Your task to perform on an android device: open chrome and create a bookmark for the current page Image 0: 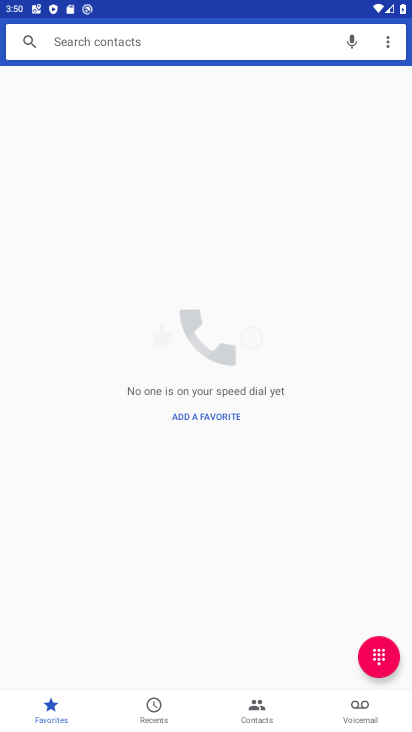
Step 0: press home button
Your task to perform on an android device: open chrome and create a bookmark for the current page Image 1: 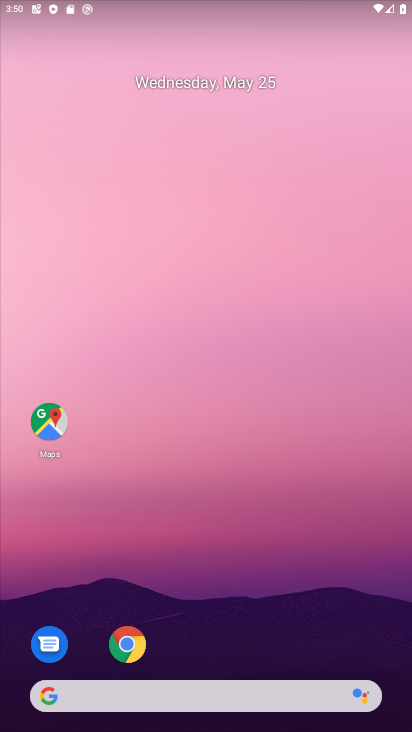
Step 1: click (128, 647)
Your task to perform on an android device: open chrome and create a bookmark for the current page Image 2: 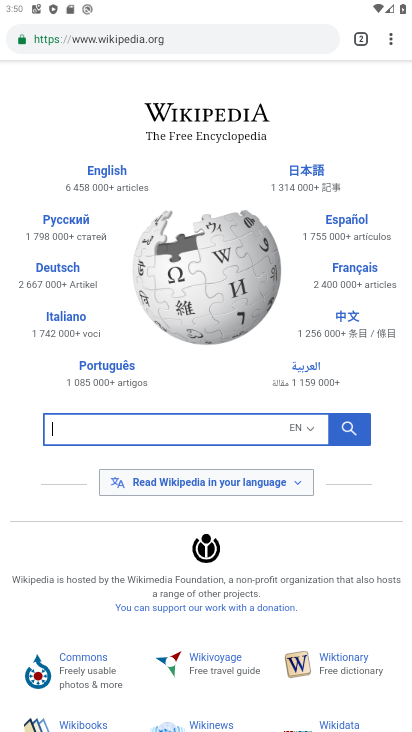
Step 2: click (390, 42)
Your task to perform on an android device: open chrome and create a bookmark for the current page Image 3: 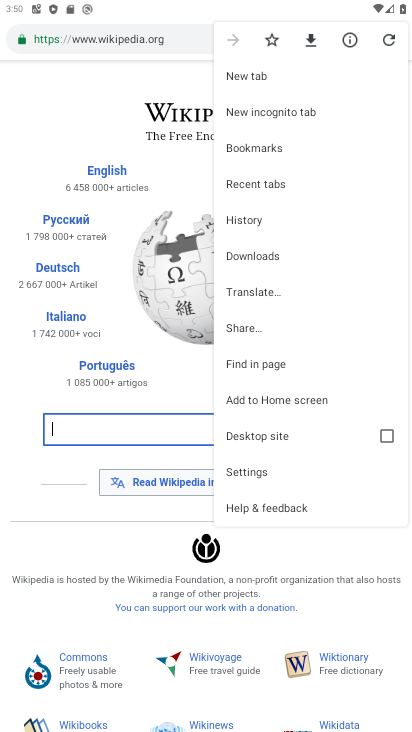
Step 3: click (271, 36)
Your task to perform on an android device: open chrome and create a bookmark for the current page Image 4: 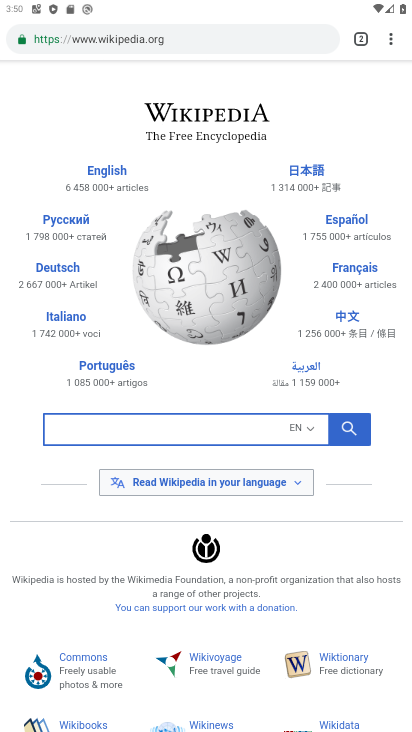
Step 4: task complete